Your task to perform on an android device: change the upload size in google photos Image 0: 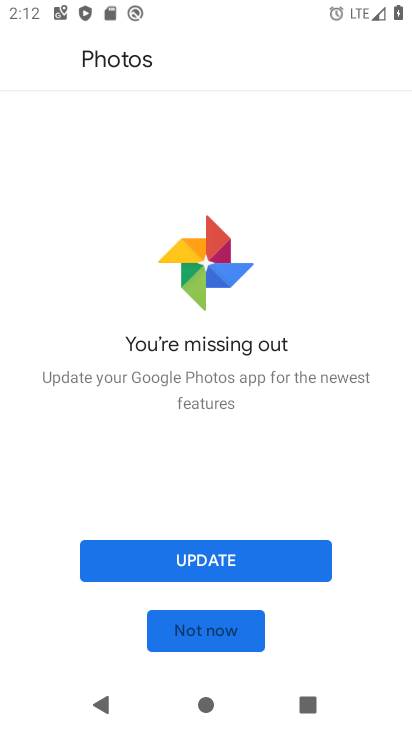
Step 0: press home button
Your task to perform on an android device: change the upload size in google photos Image 1: 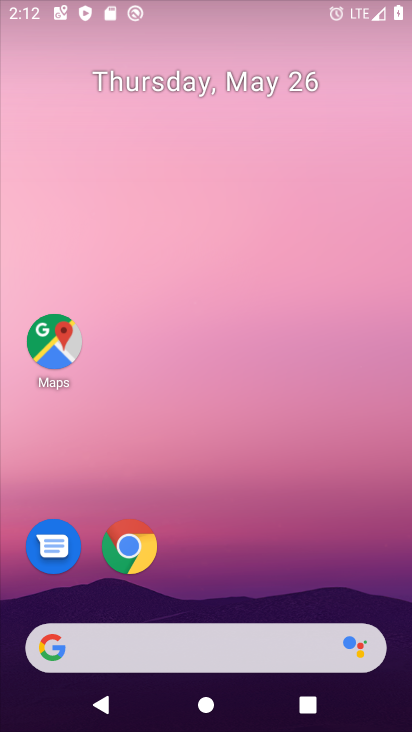
Step 1: drag from (231, 579) to (267, 10)
Your task to perform on an android device: change the upload size in google photos Image 2: 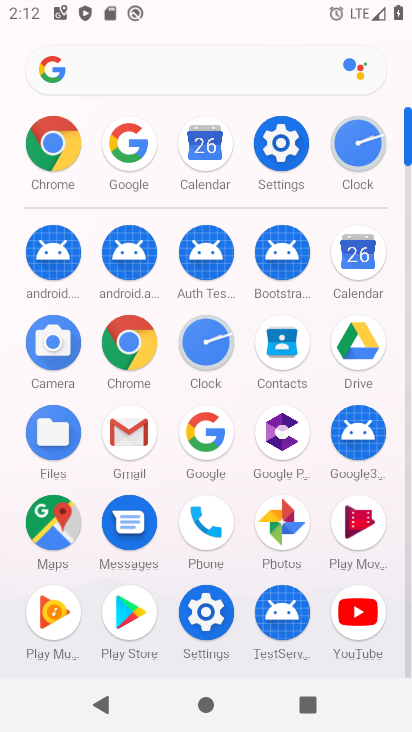
Step 2: click (284, 527)
Your task to perform on an android device: change the upload size in google photos Image 3: 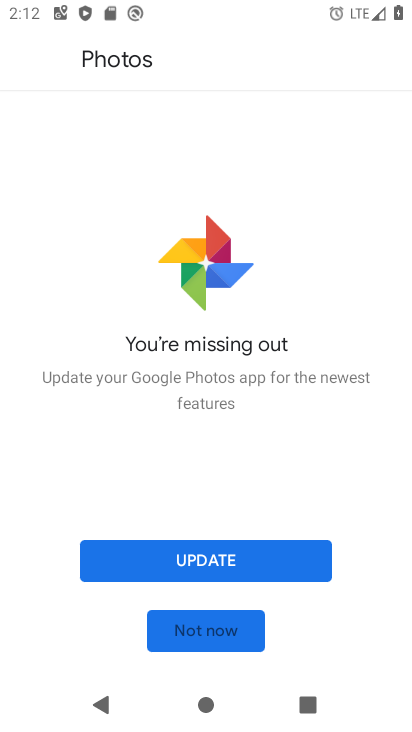
Step 3: click (203, 570)
Your task to perform on an android device: change the upload size in google photos Image 4: 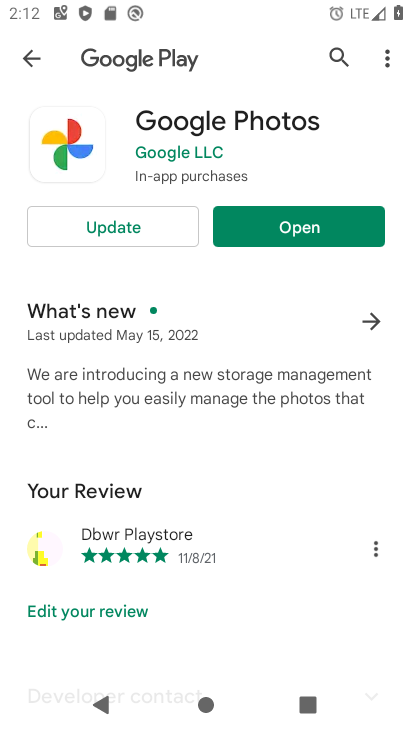
Step 4: click (129, 233)
Your task to perform on an android device: change the upload size in google photos Image 5: 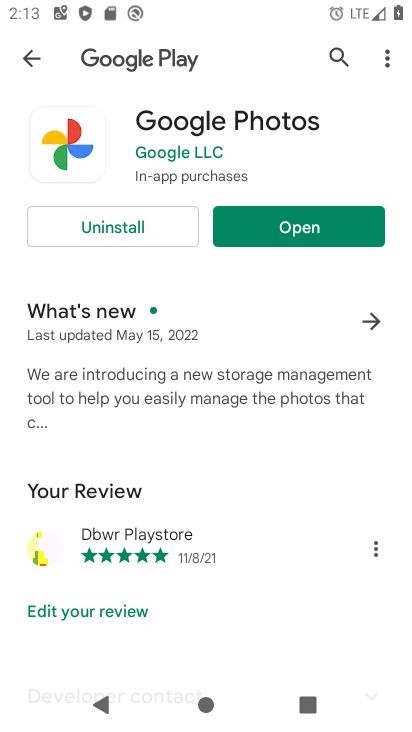
Step 5: click (278, 219)
Your task to perform on an android device: change the upload size in google photos Image 6: 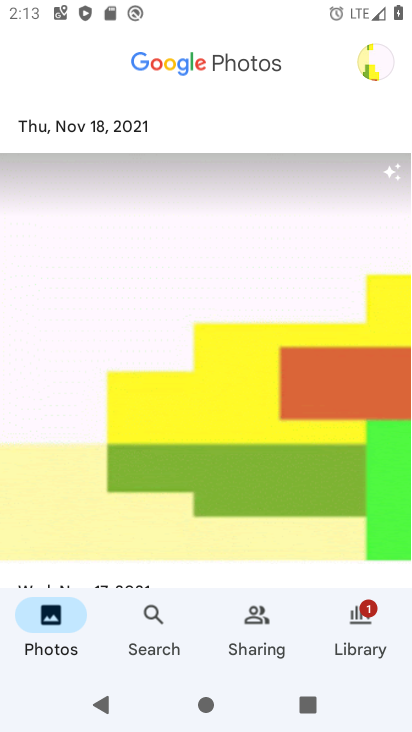
Step 6: click (370, 65)
Your task to perform on an android device: change the upload size in google photos Image 7: 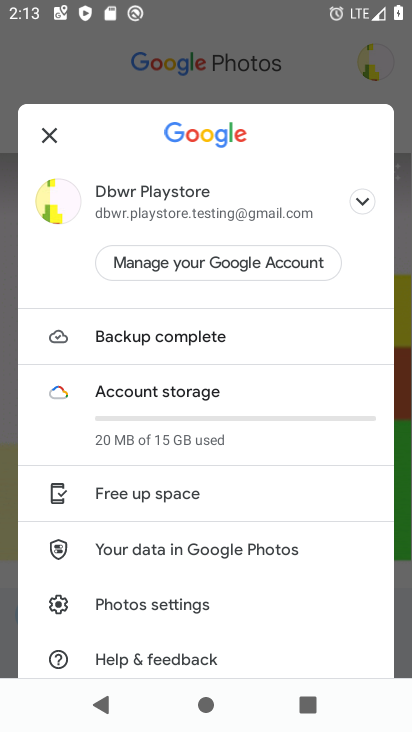
Step 7: drag from (187, 551) to (217, 281)
Your task to perform on an android device: change the upload size in google photos Image 8: 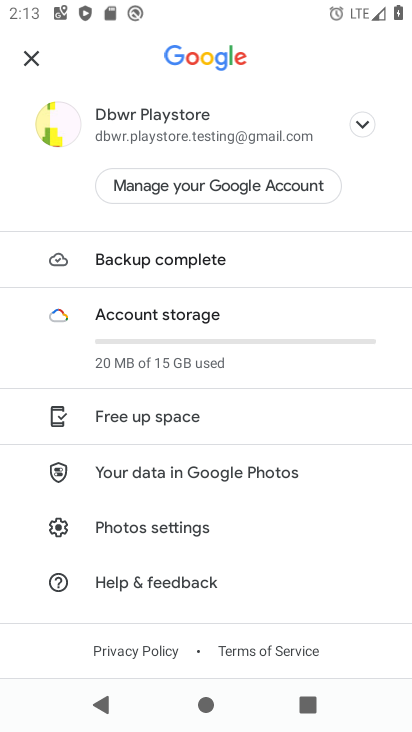
Step 8: click (188, 526)
Your task to perform on an android device: change the upload size in google photos Image 9: 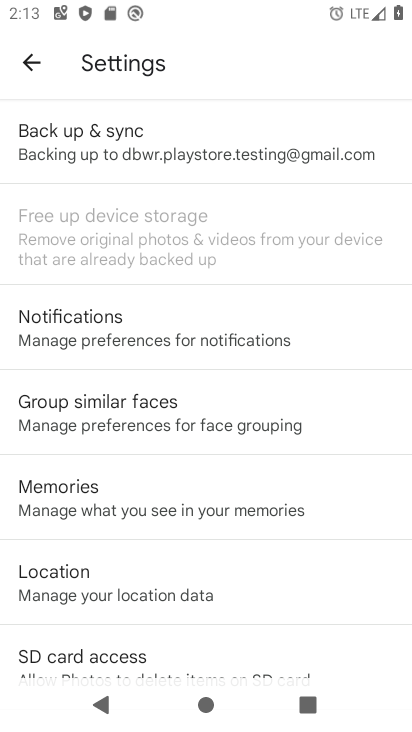
Step 9: click (122, 139)
Your task to perform on an android device: change the upload size in google photos Image 10: 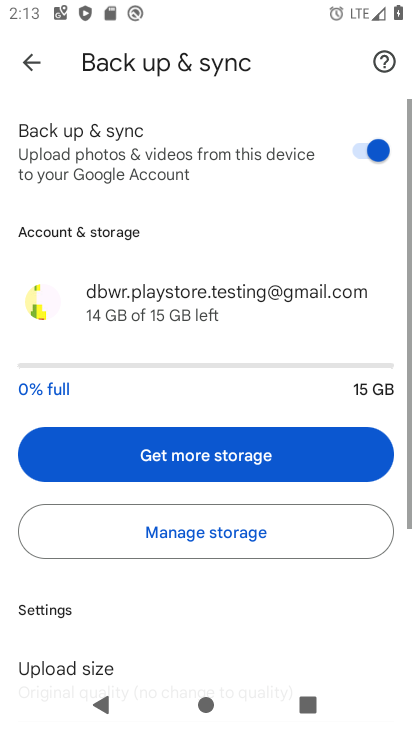
Step 10: drag from (216, 562) to (227, 130)
Your task to perform on an android device: change the upload size in google photos Image 11: 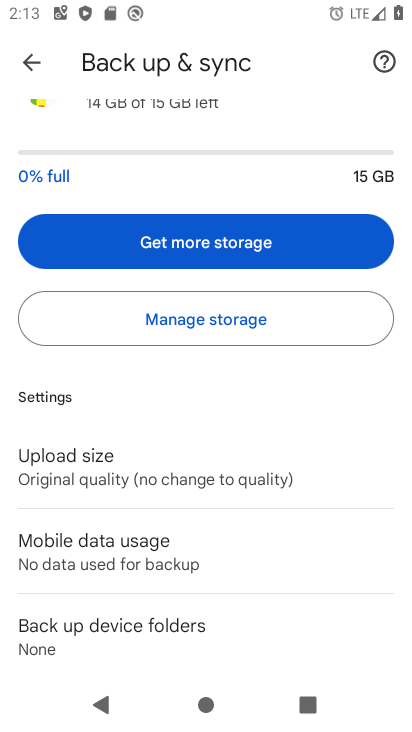
Step 11: click (135, 475)
Your task to perform on an android device: change the upload size in google photos Image 12: 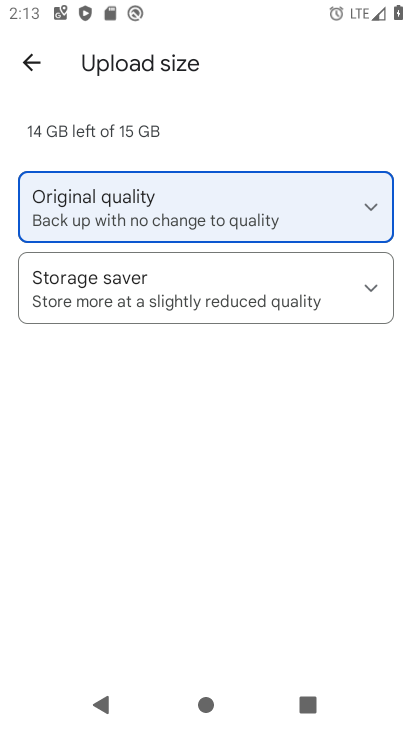
Step 12: click (123, 292)
Your task to perform on an android device: change the upload size in google photos Image 13: 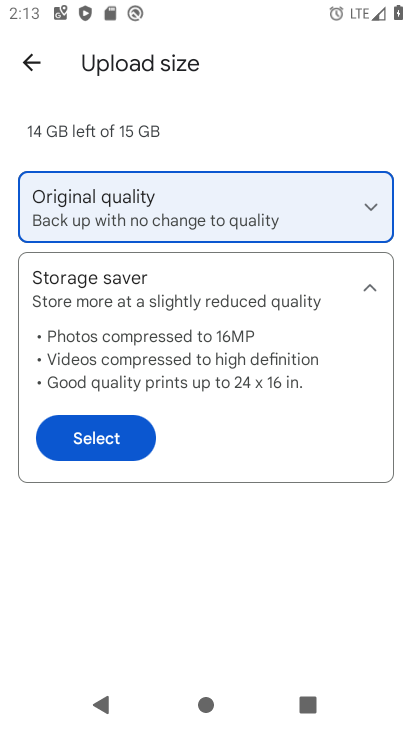
Step 13: click (99, 423)
Your task to perform on an android device: change the upload size in google photos Image 14: 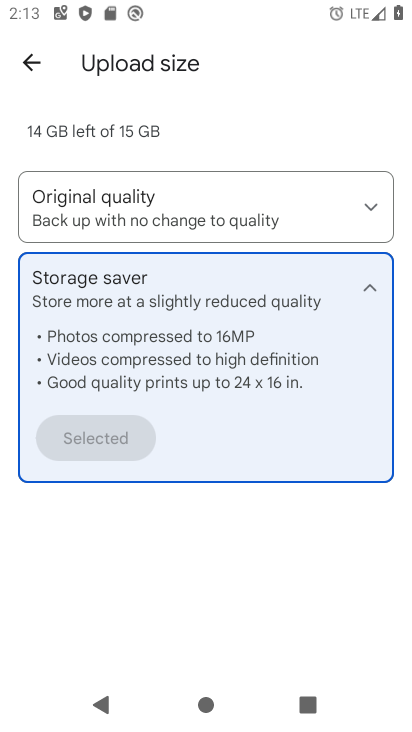
Step 14: task complete